Your task to perform on an android device: What's the weather today? Image 0: 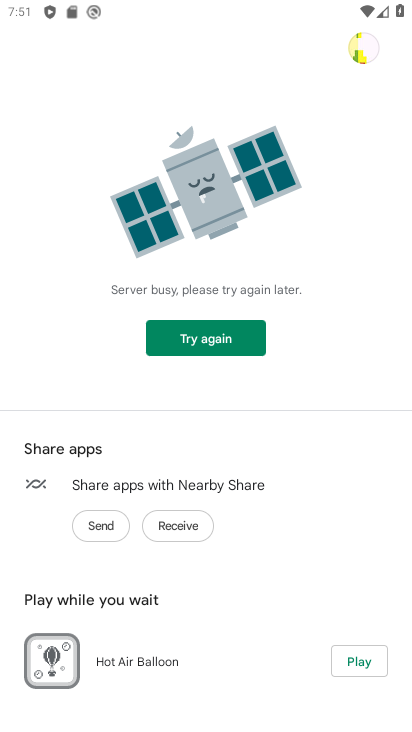
Step 0: press home button
Your task to perform on an android device: What's the weather today? Image 1: 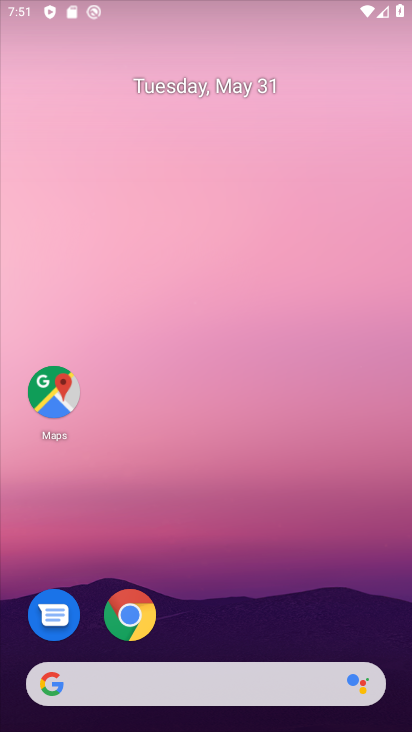
Step 1: drag from (195, 635) to (232, 192)
Your task to perform on an android device: What's the weather today? Image 2: 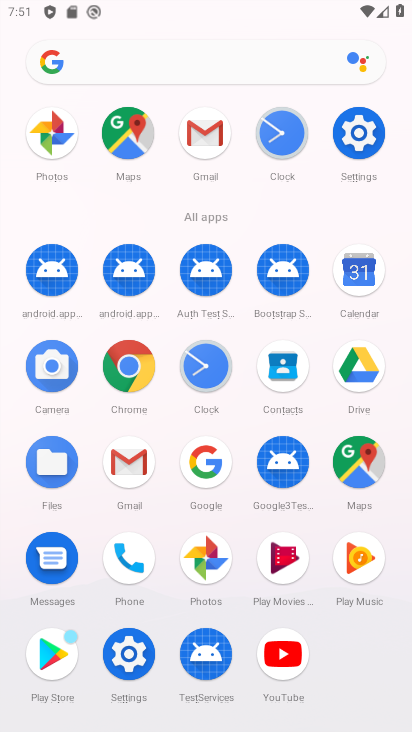
Step 2: click (208, 466)
Your task to perform on an android device: What's the weather today? Image 3: 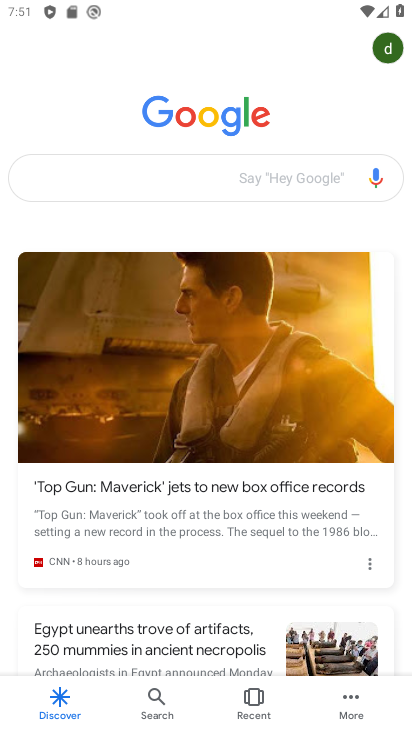
Step 3: click (149, 170)
Your task to perform on an android device: What's the weather today? Image 4: 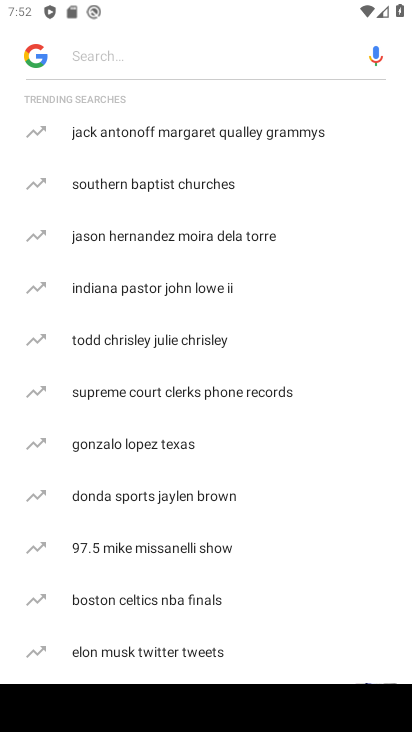
Step 4: type "weather"
Your task to perform on an android device: What's the weather today? Image 5: 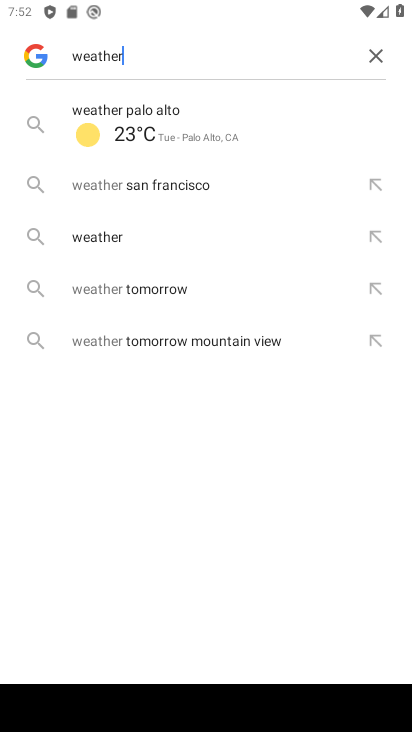
Step 5: click (185, 142)
Your task to perform on an android device: What's the weather today? Image 6: 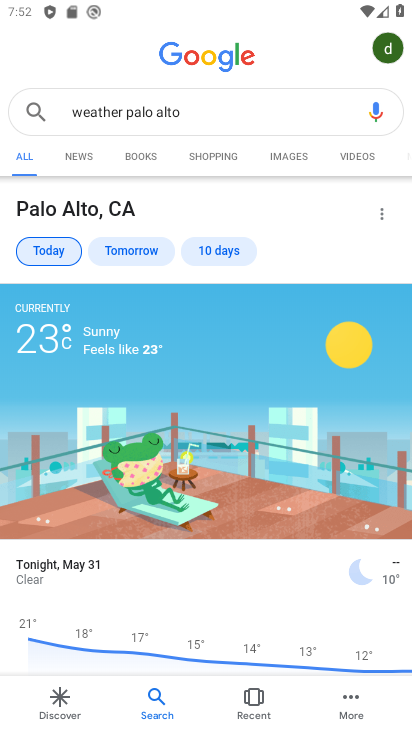
Step 6: task complete